Your task to perform on an android device: Open the map Image 0: 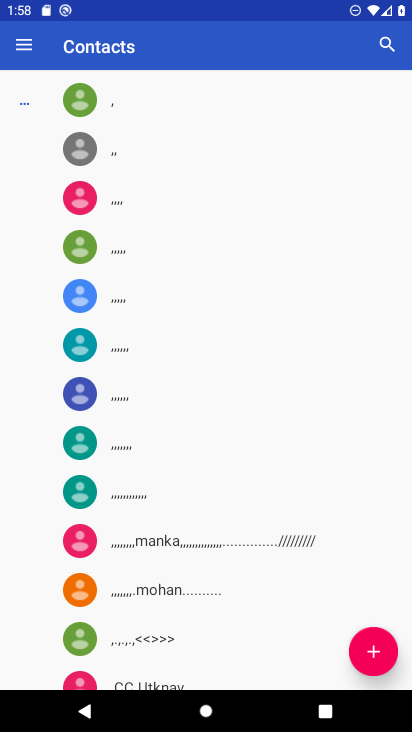
Step 0: press home button
Your task to perform on an android device: Open the map Image 1: 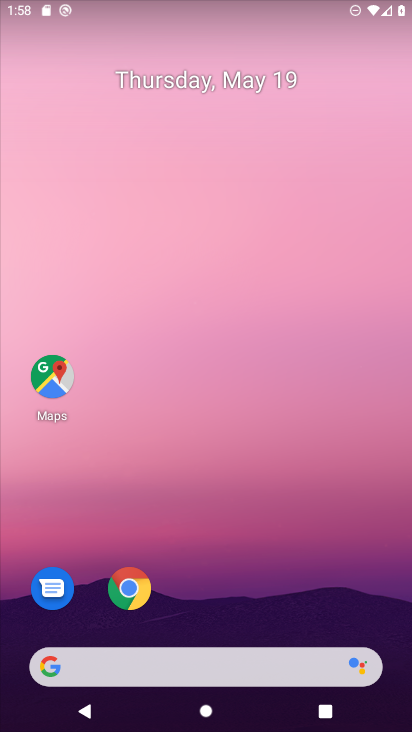
Step 1: click (52, 380)
Your task to perform on an android device: Open the map Image 2: 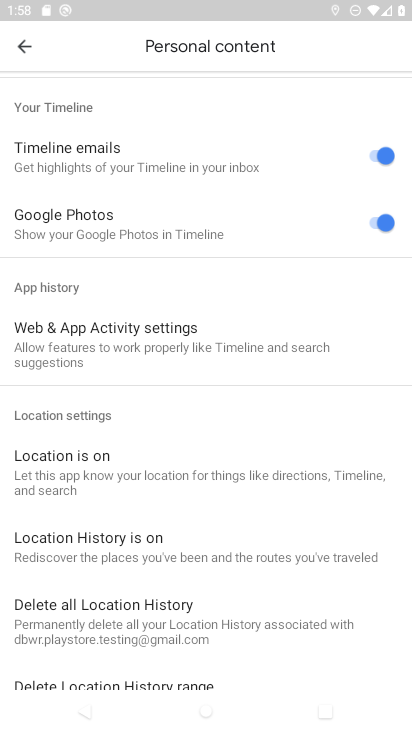
Step 2: click (20, 45)
Your task to perform on an android device: Open the map Image 3: 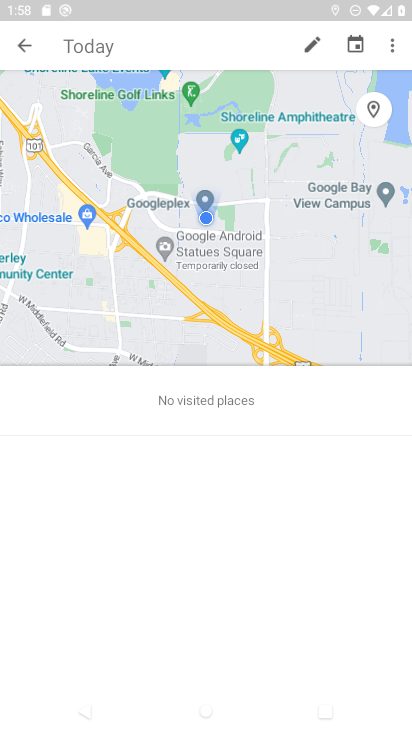
Step 3: click (20, 45)
Your task to perform on an android device: Open the map Image 4: 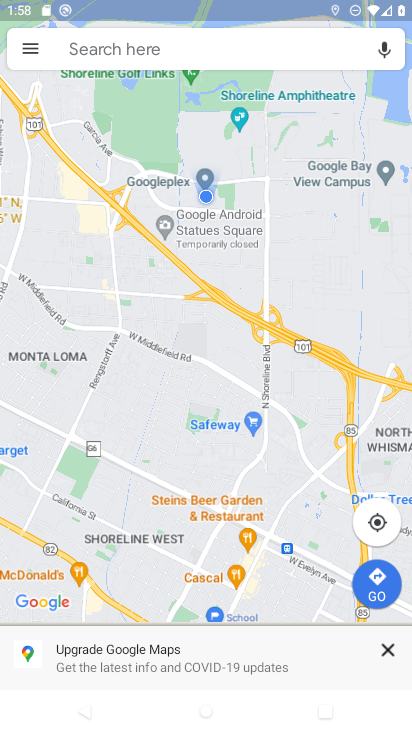
Step 4: task complete